Your task to perform on an android device: check android version Image 0: 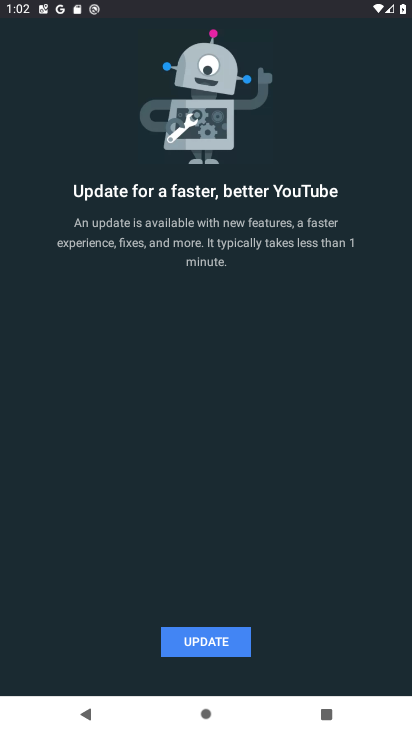
Step 0: press home button
Your task to perform on an android device: check android version Image 1: 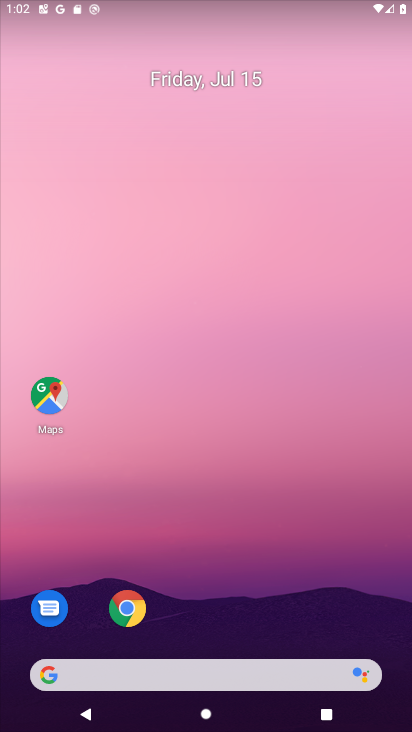
Step 1: drag from (237, 578) to (156, 15)
Your task to perform on an android device: check android version Image 2: 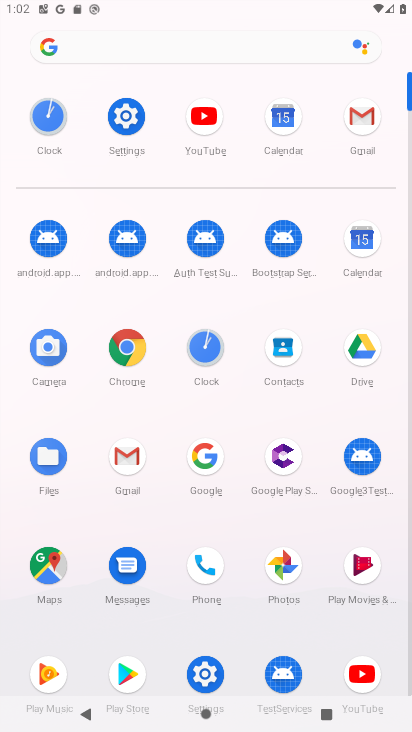
Step 2: click (124, 115)
Your task to perform on an android device: check android version Image 3: 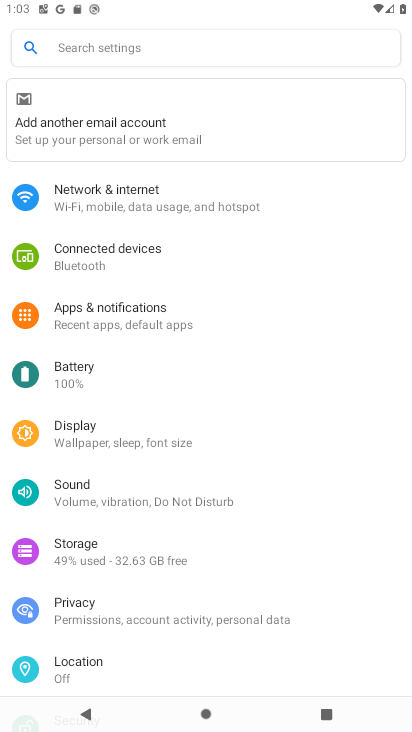
Step 3: drag from (299, 636) to (229, 164)
Your task to perform on an android device: check android version Image 4: 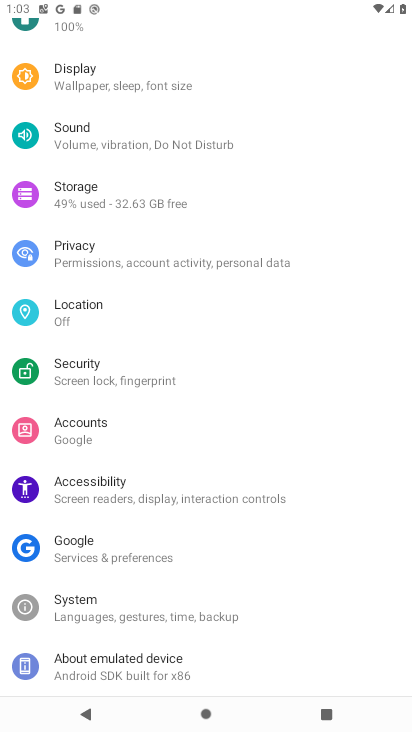
Step 4: drag from (220, 612) to (195, 218)
Your task to perform on an android device: check android version Image 5: 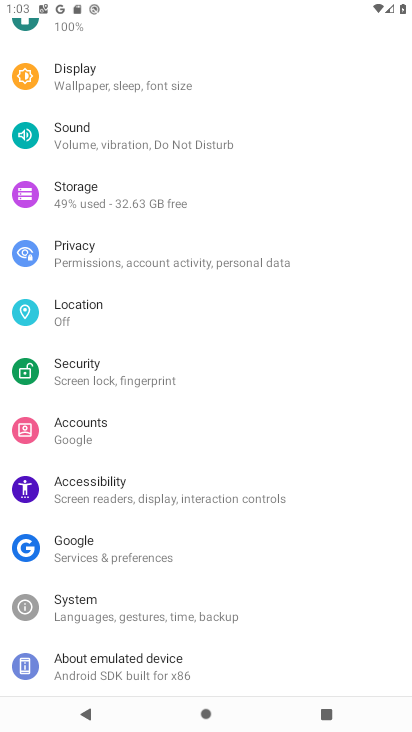
Step 5: click (134, 653)
Your task to perform on an android device: check android version Image 6: 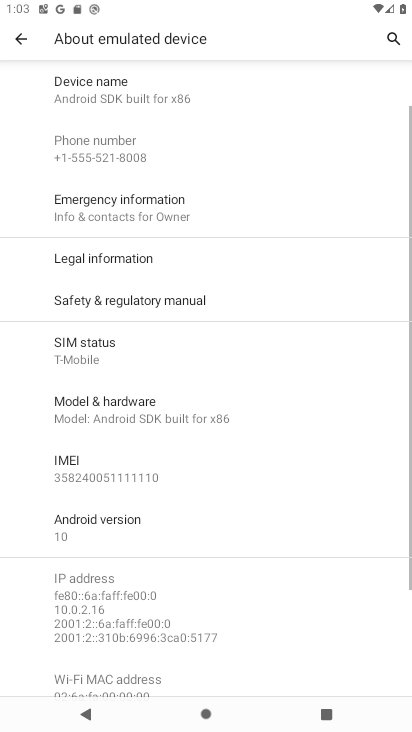
Step 6: task complete